Your task to perform on an android device: Add logitech g pro to the cart on costco.com, then select checkout. Image 0: 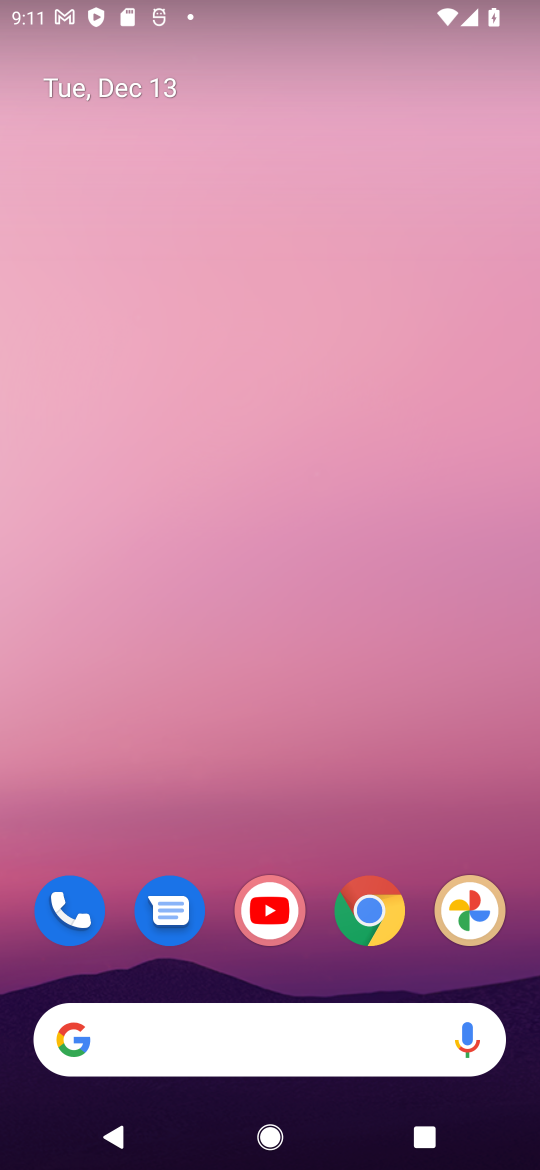
Step 0: drag from (197, 1015) to (134, 429)
Your task to perform on an android device: Add logitech g pro to the cart on costco.com, then select checkout. Image 1: 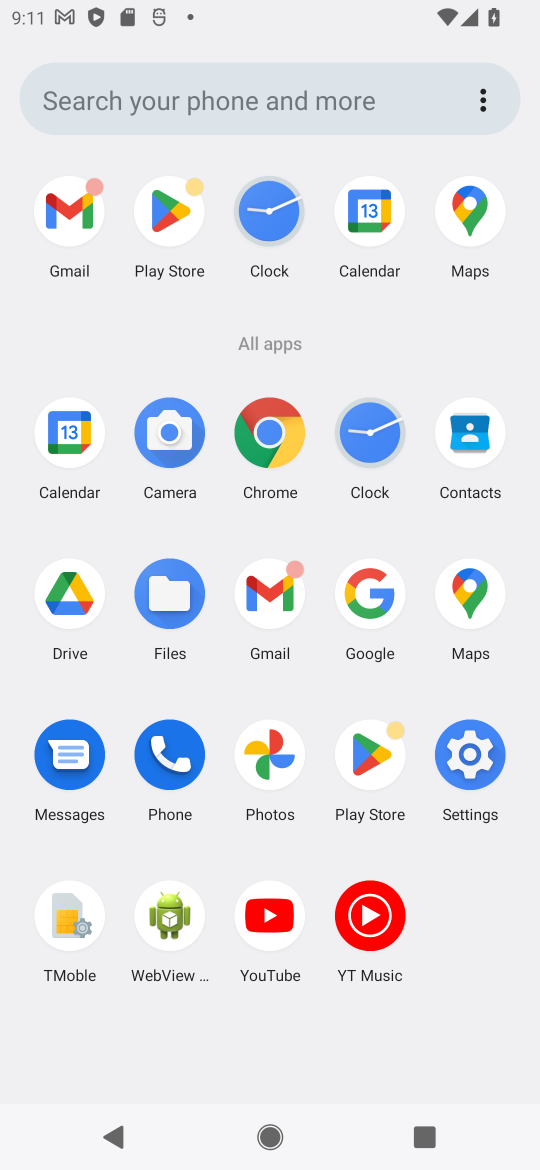
Step 1: click (358, 591)
Your task to perform on an android device: Add logitech g pro to the cart on costco.com, then select checkout. Image 2: 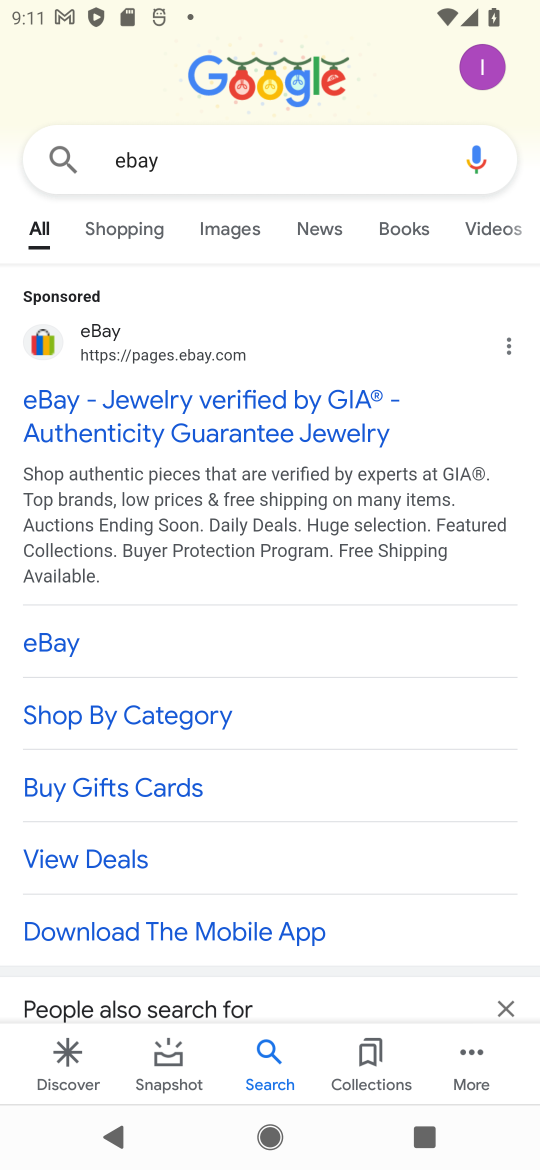
Step 2: click (153, 152)
Your task to perform on an android device: Add logitech g pro to the cart on costco.com, then select checkout. Image 3: 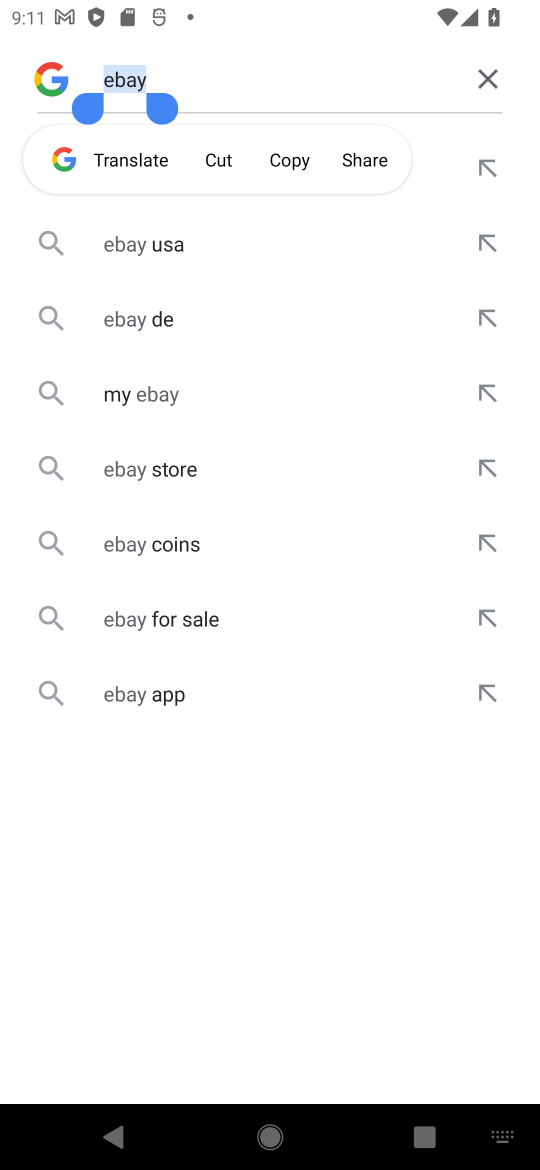
Step 3: click (483, 77)
Your task to perform on an android device: Add logitech g pro to the cart on costco.com, then select checkout. Image 4: 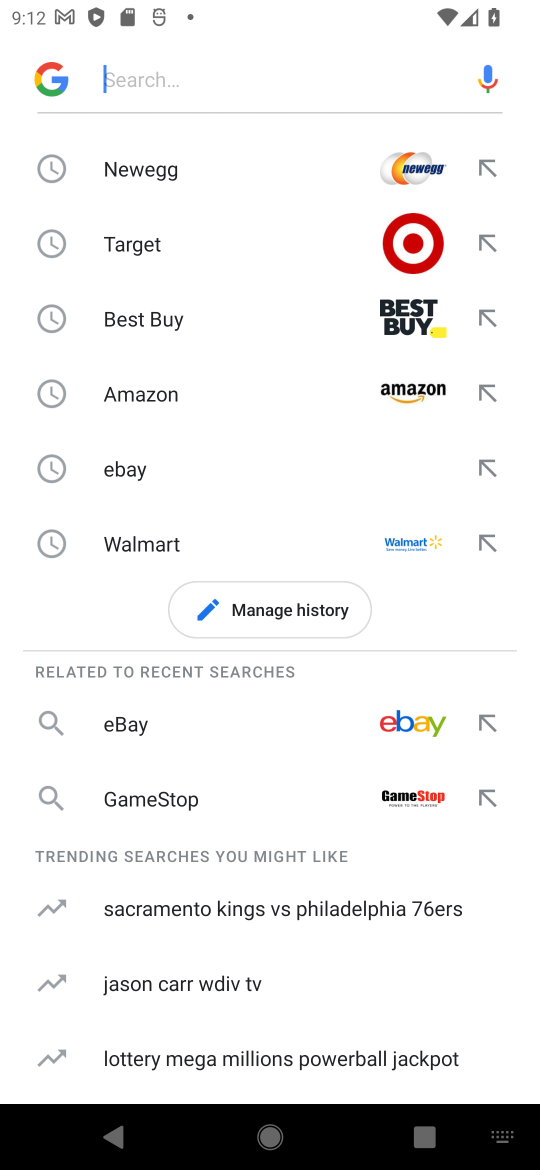
Step 4: type " costco.com"
Your task to perform on an android device: Add logitech g pro to the cart on costco.com, then select checkout. Image 5: 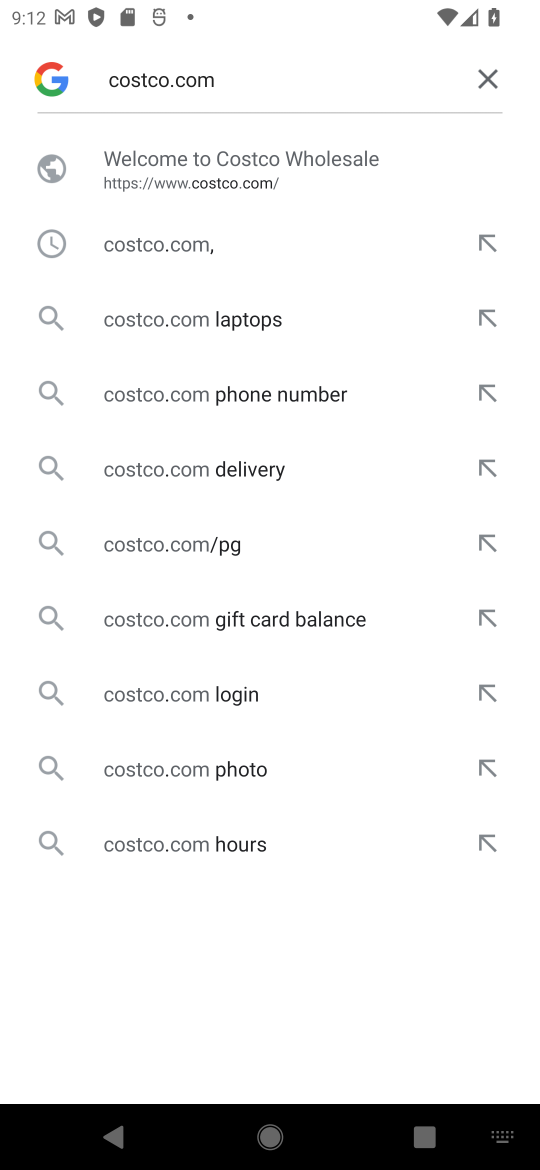
Step 5: click (174, 177)
Your task to perform on an android device: Add logitech g pro to the cart on costco.com, then select checkout. Image 6: 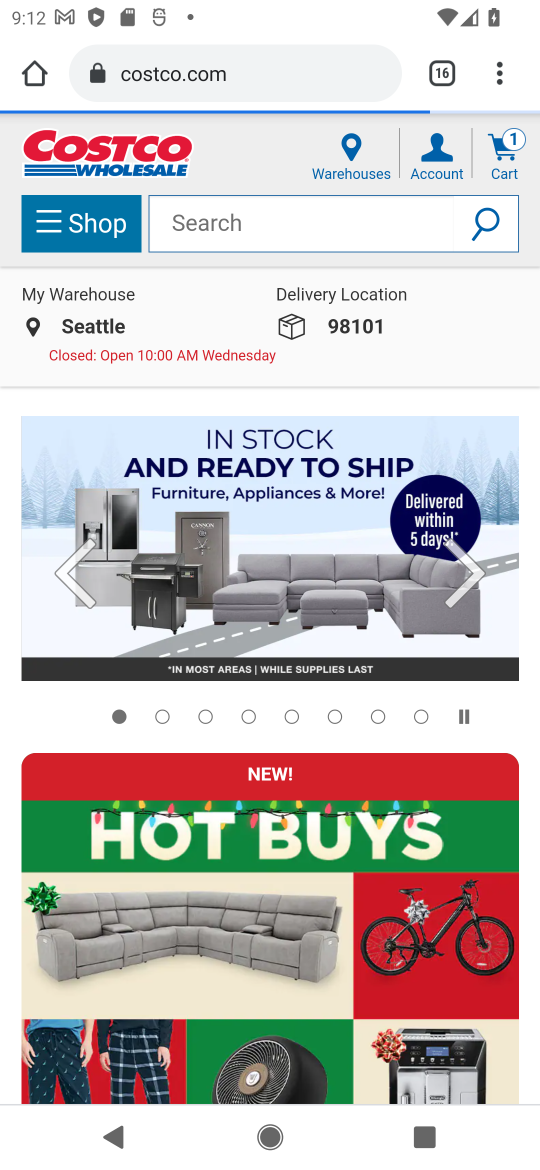
Step 6: click (183, 220)
Your task to perform on an android device: Add logitech g pro to the cart on costco.com, then select checkout. Image 7: 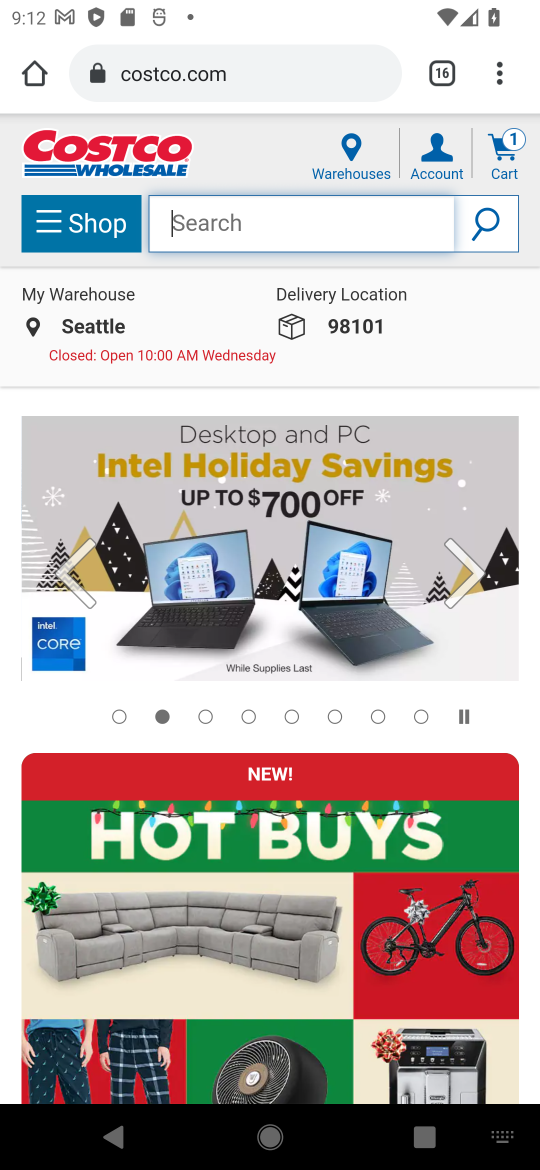
Step 7: type "logitech g pro"
Your task to perform on an android device: Add logitech g pro to the cart on costco.com, then select checkout. Image 8: 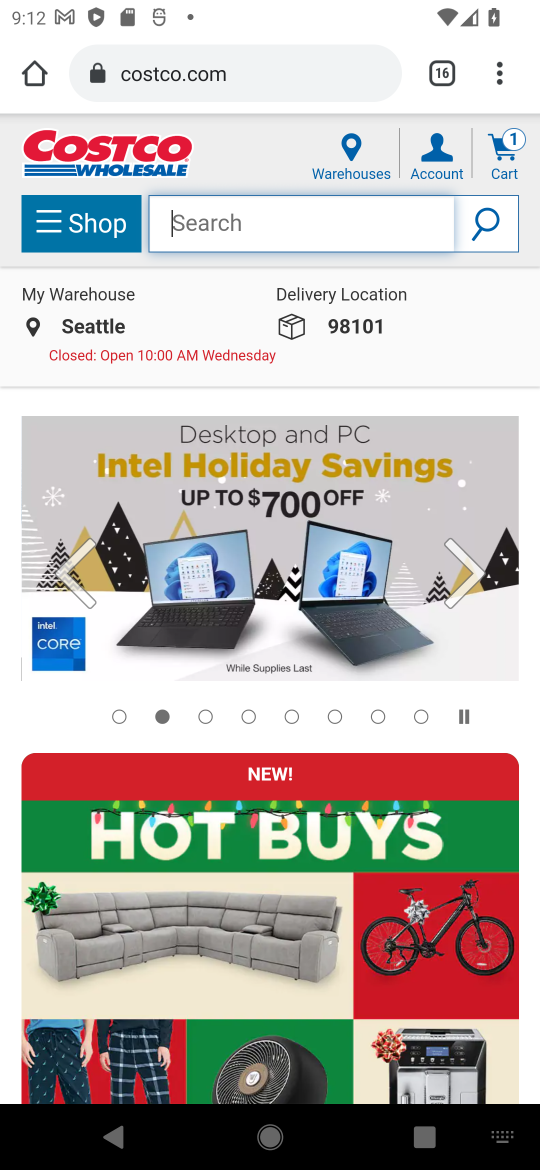
Step 8: click (482, 223)
Your task to perform on an android device: Add logitech g pro to the cart on costco.com, then select checkout. Image 9: 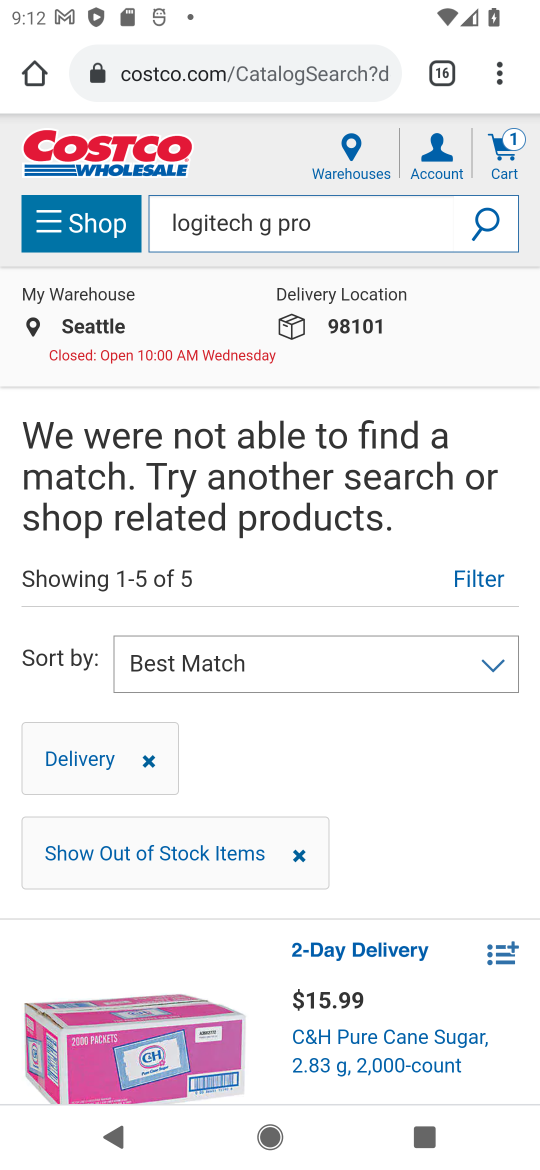
Step 9: drag from (459, 964) to (404, 475)
Your task to perform on an android device: Add logitech g pro to the cart on costco.com, then select checkout. Image 10: 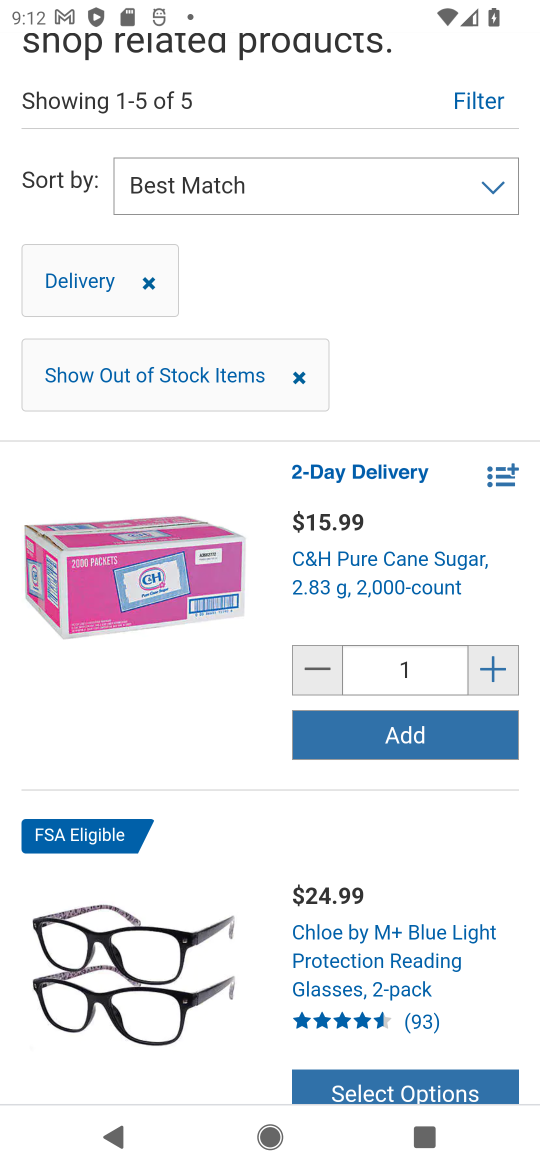
Step 10: click (430, 744)
Your task to perform on an android device: Add logitech g pro to the cart on costco.com, then select checkout. Image 11: 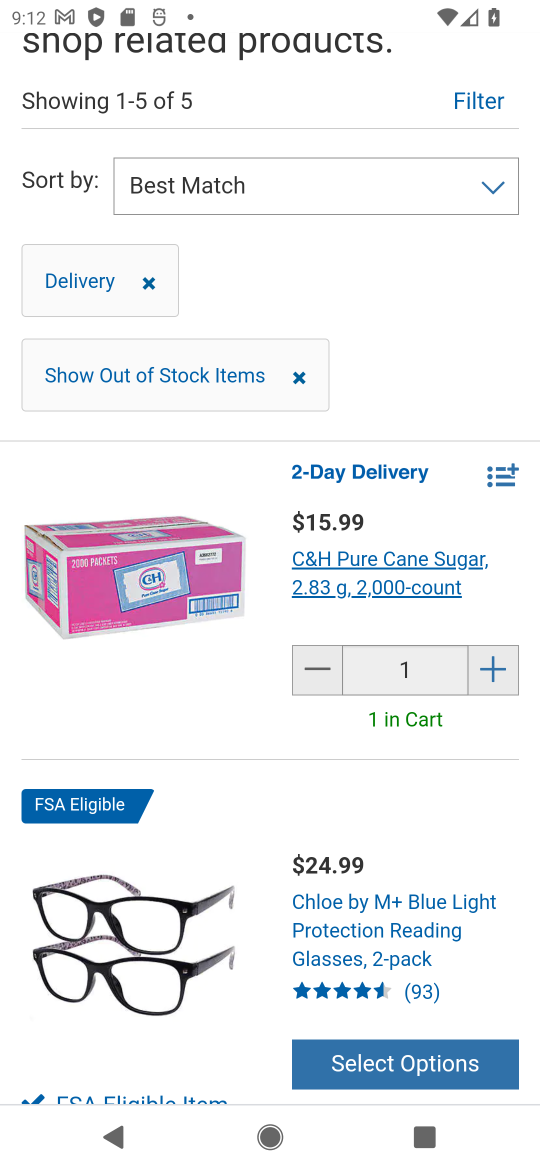
Step 11: drag from (366, 306) to (312, 950)
Your task to perform on an android device: Add logitech g pro to the cart on costco.com, then select checkout. Image 12: 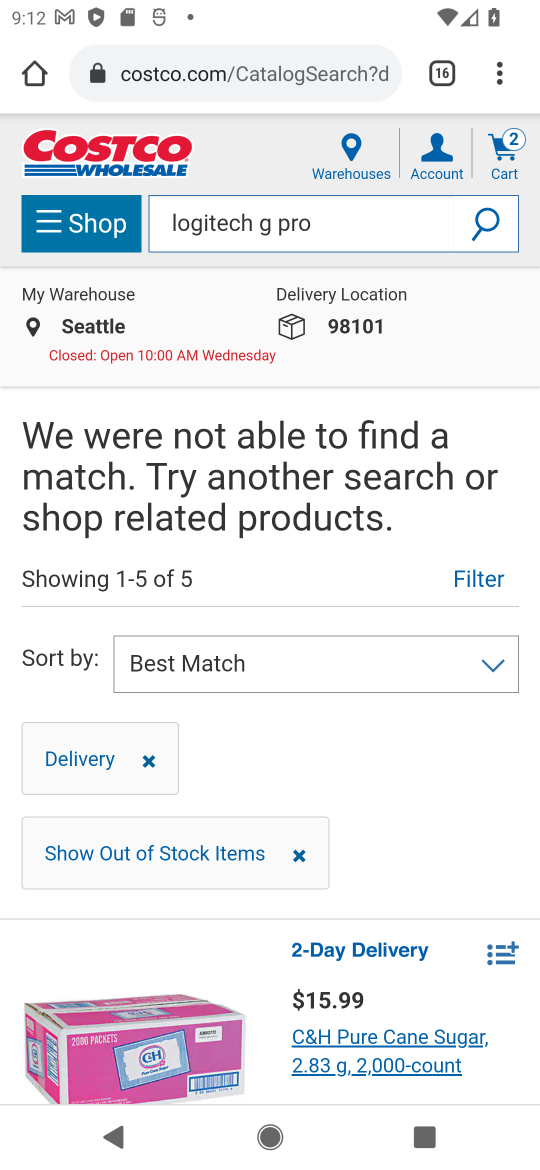
Step 12: click (509, 132)
Your task to perform on an android device: Add logitech g pro to the cart on costco.com, then select checkout. Image 13: 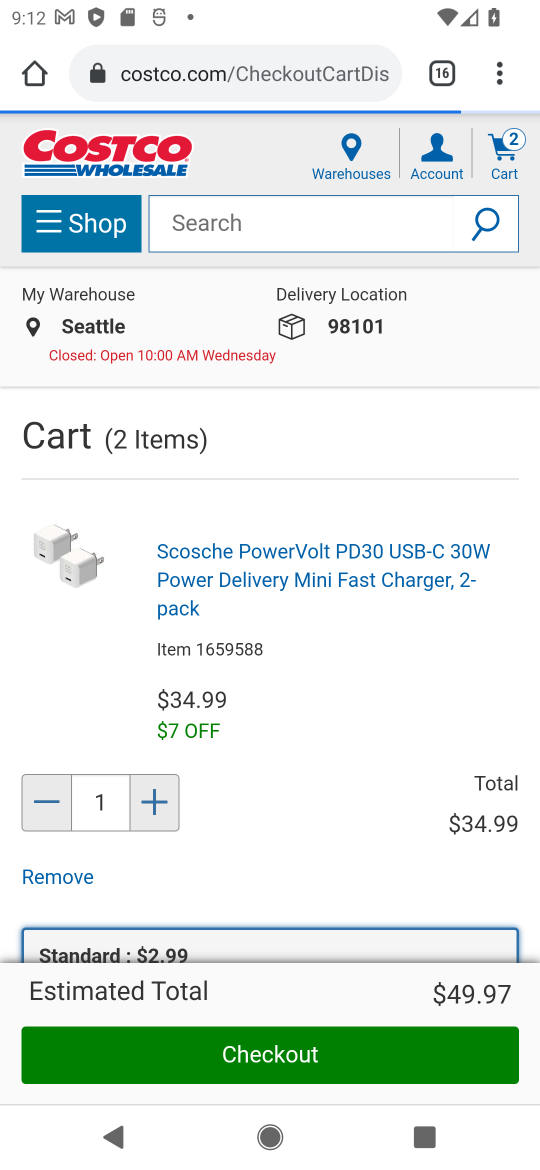
Step 13: click (315, 1048)
Your task to perform on an android device: Add logitech g pro to the cart on costco.com, then select checkout. Image 14: 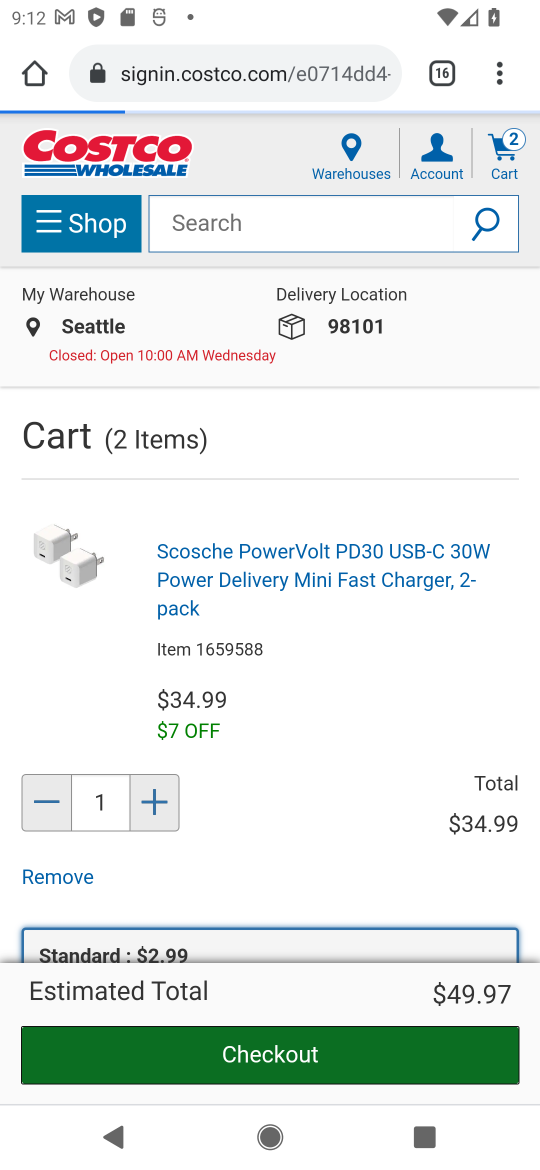
Step 14: click (291, 1060)
Your task to perform on an android device: Add logitech g pro to the cart on costco.com, then select checkout. Image 15: 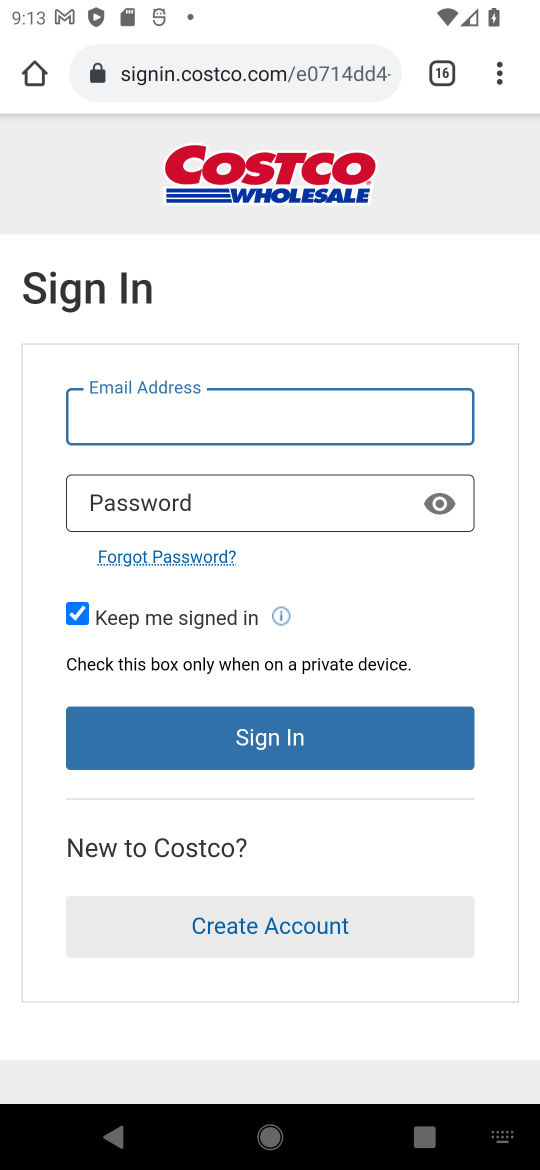
Step 15: task complete